Your task to perform on an android device: Find coffee shops on Maps Image 0: 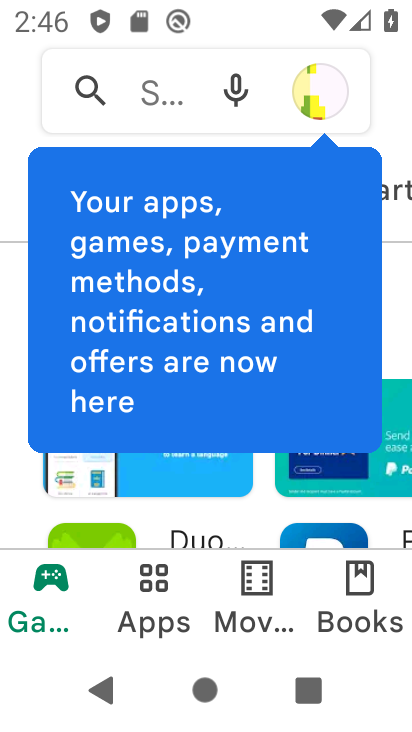
Step 0: press back button
Your task to perform on an android device: Find coffee shops on Maps Image 1: 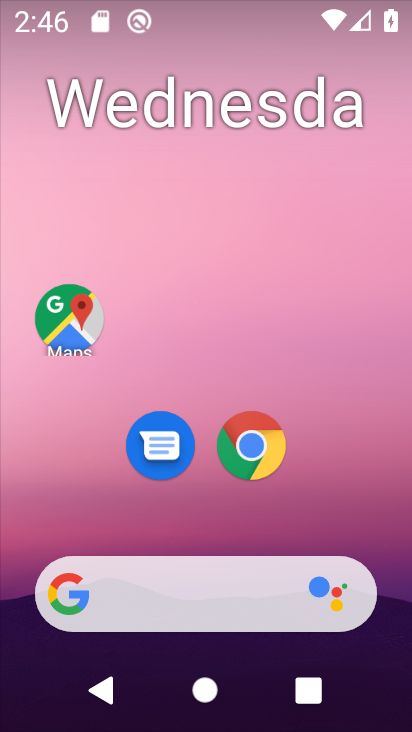
Step 1: click (80, 294)
Your task to perform on an android device: Find coffee shops on Maps Image 2: 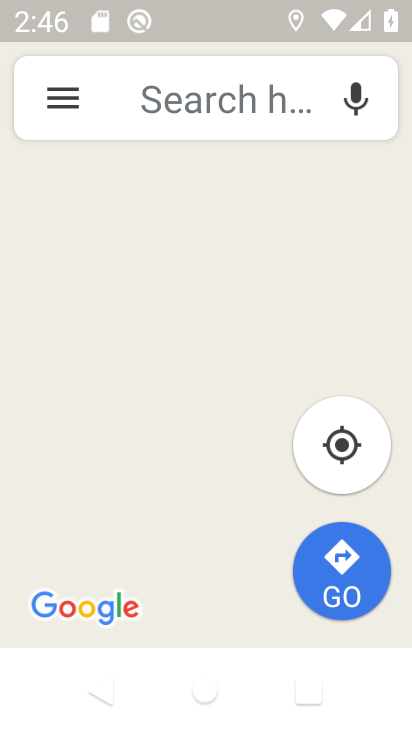
Step 2: click (178, 93)
Your task to perform on an android device: Find coffee shops on Maps Image 3: 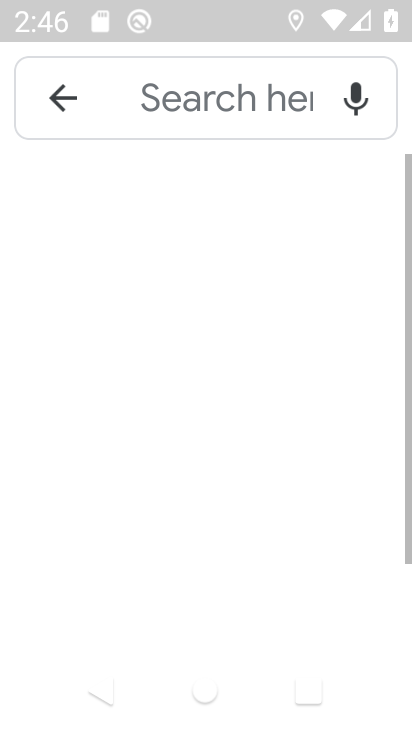
Step 3: click (215, 110)
Your task to perform on an android device: Find coffee shops on Maps Image 4: 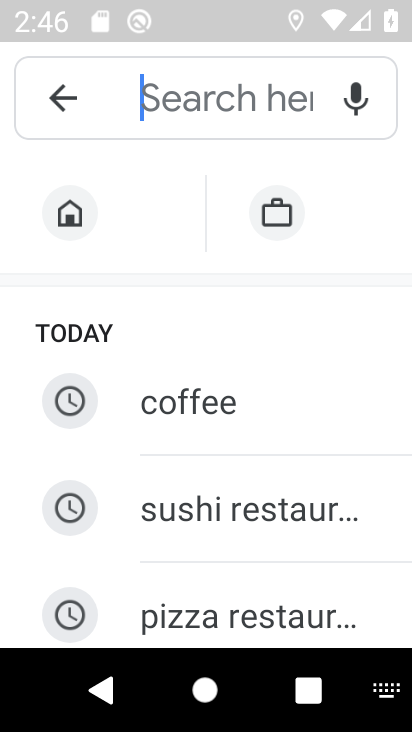
Step 4: type "coffee shops"
Your task to perform on an android device: Find coffee shops on Maps Image 5: 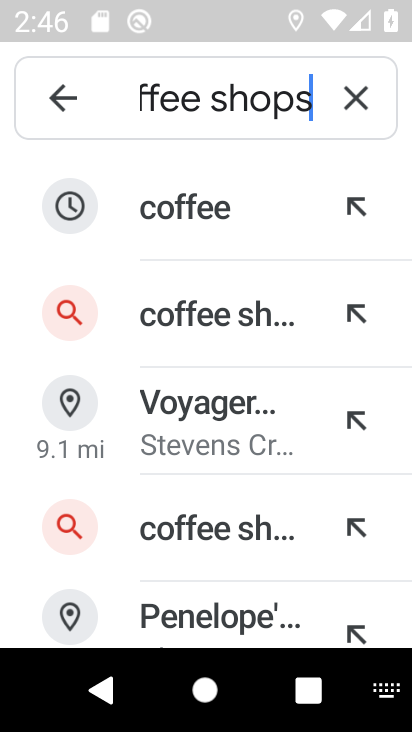
Step 5: click (243, 298)
Your task to perform on an android device: Find coffee shops on Maps Image 6: 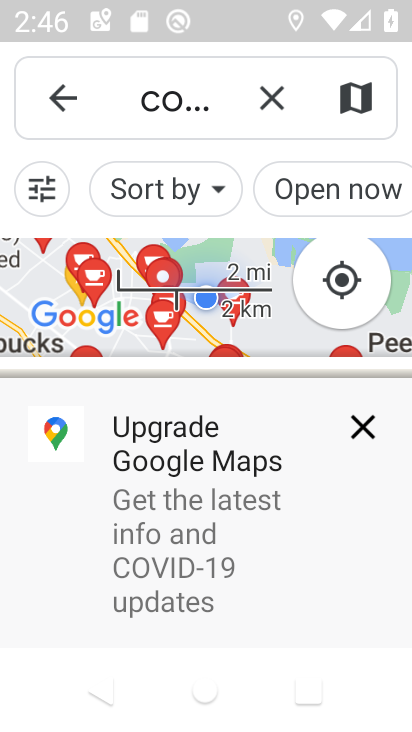
Step 6: click (372, 425)
Your task to perform on an android device: Find coffee shops on Maps Image 7: 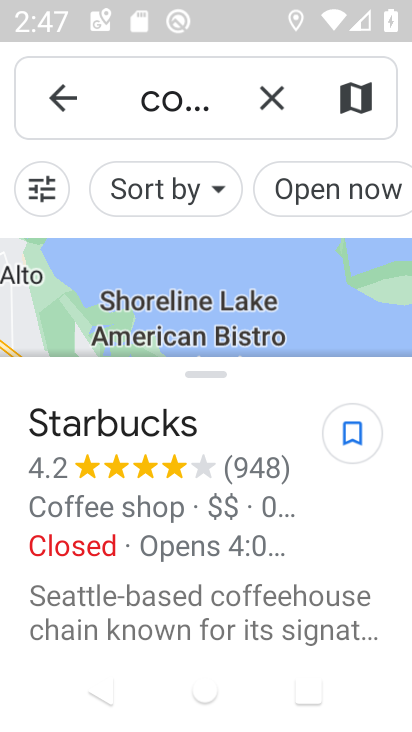
Step 7: task complete